Your task to perform on an android device: Go to privacy settings Image 0: 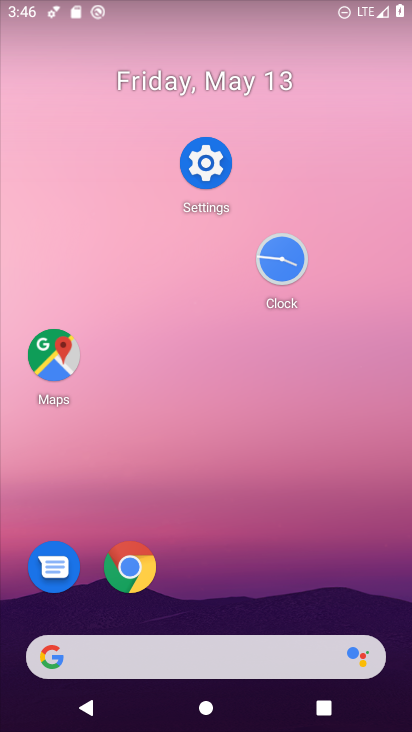
Step 0: click (145, 589)
Your task to perform on an android device: Go to privacy settings Image 1: 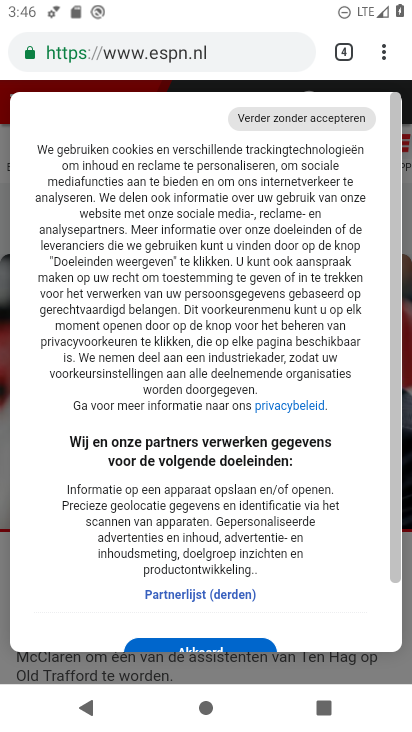
Step 1: click (198, 189)
Your task to perform on an android device: Go to privacy settings Image 2: 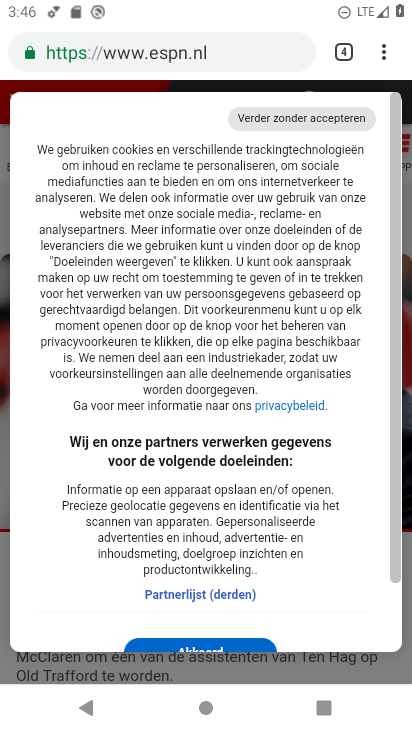
Step 2: press home button
Your task to perform on an android device: Go to privacy settings Image 3: 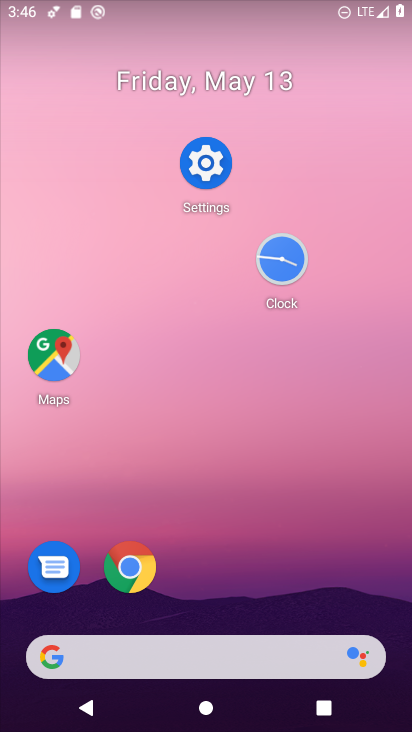
Step 3: click (200, 172)
Your task to perform on an android device: Go to privacy settings Image 4: 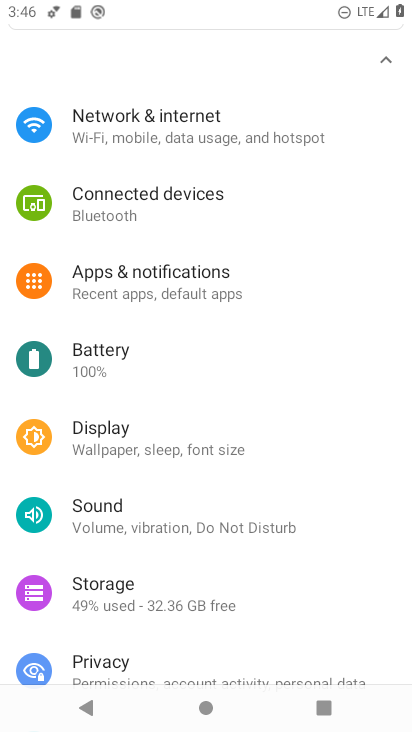
Step 4: click (158, 652)
Your task to perform on an android device: Go to privacy settings Image 5: 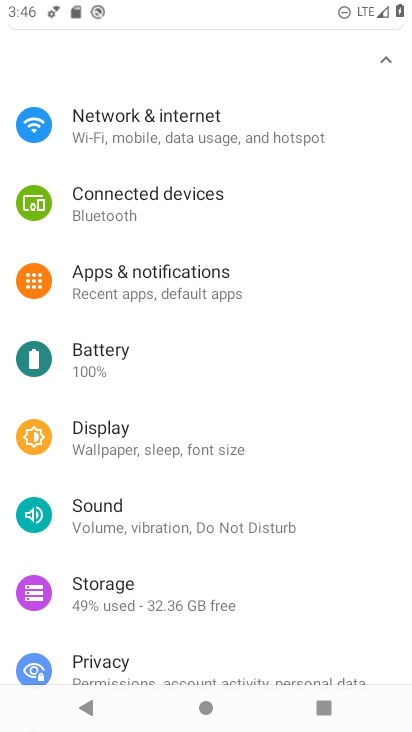
Step 5: task complete